Your task to perform on an android device: open app "Facebook" (install if not already installed) Image 0: 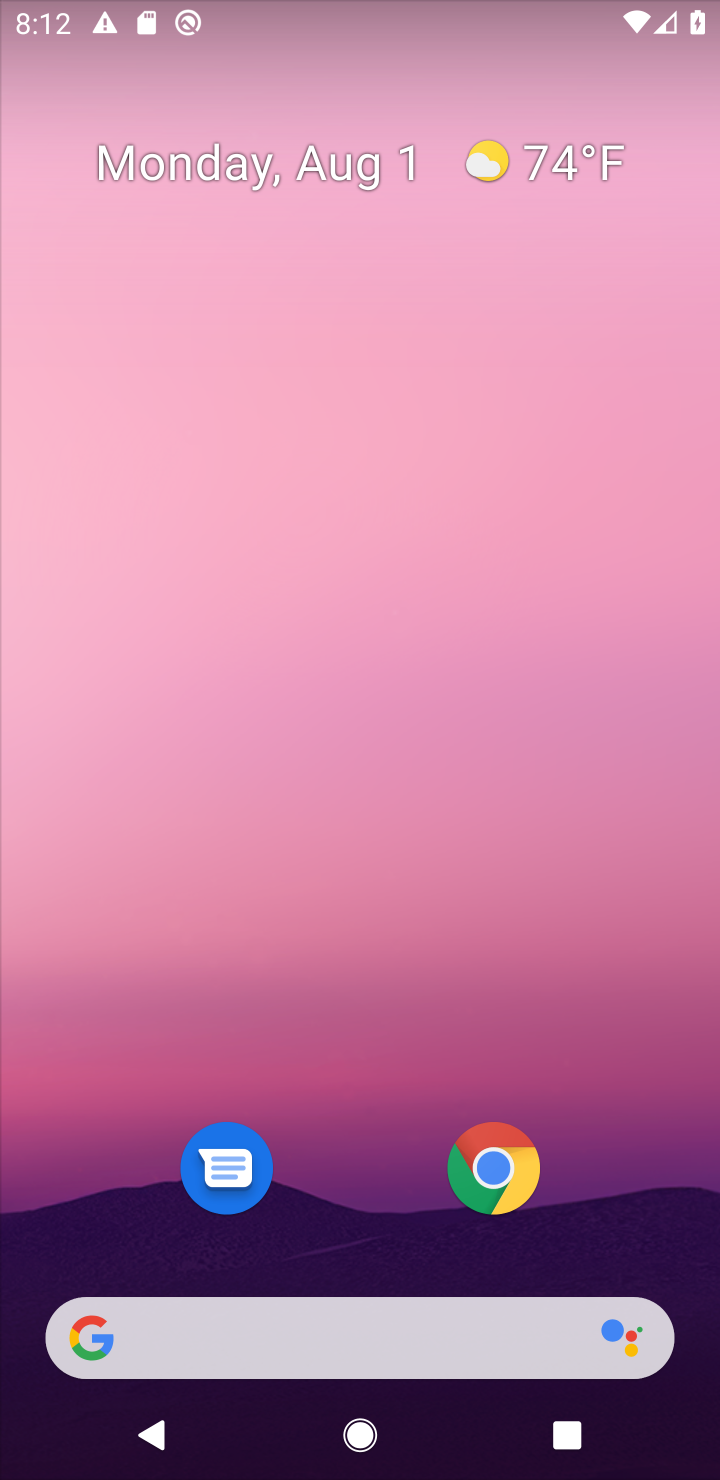
Step 0: drag from (326, 1054) to (414, 323)
Your task to perform on an android device: open app "Facebook" (install if not already installed) Image 1: 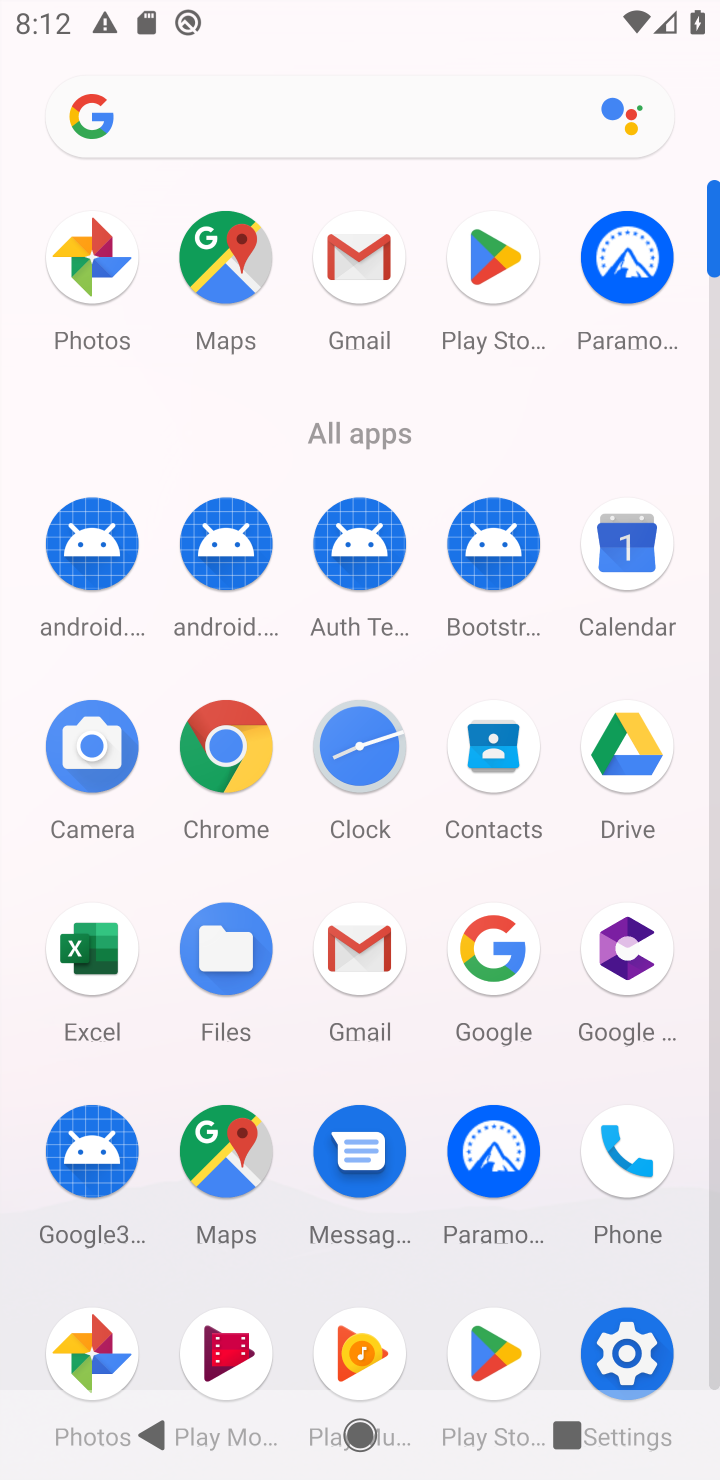
Step 1: click (501, 293)
Your task to perform on an android device: open app "Facebook" (install if not already installed) Image 2: 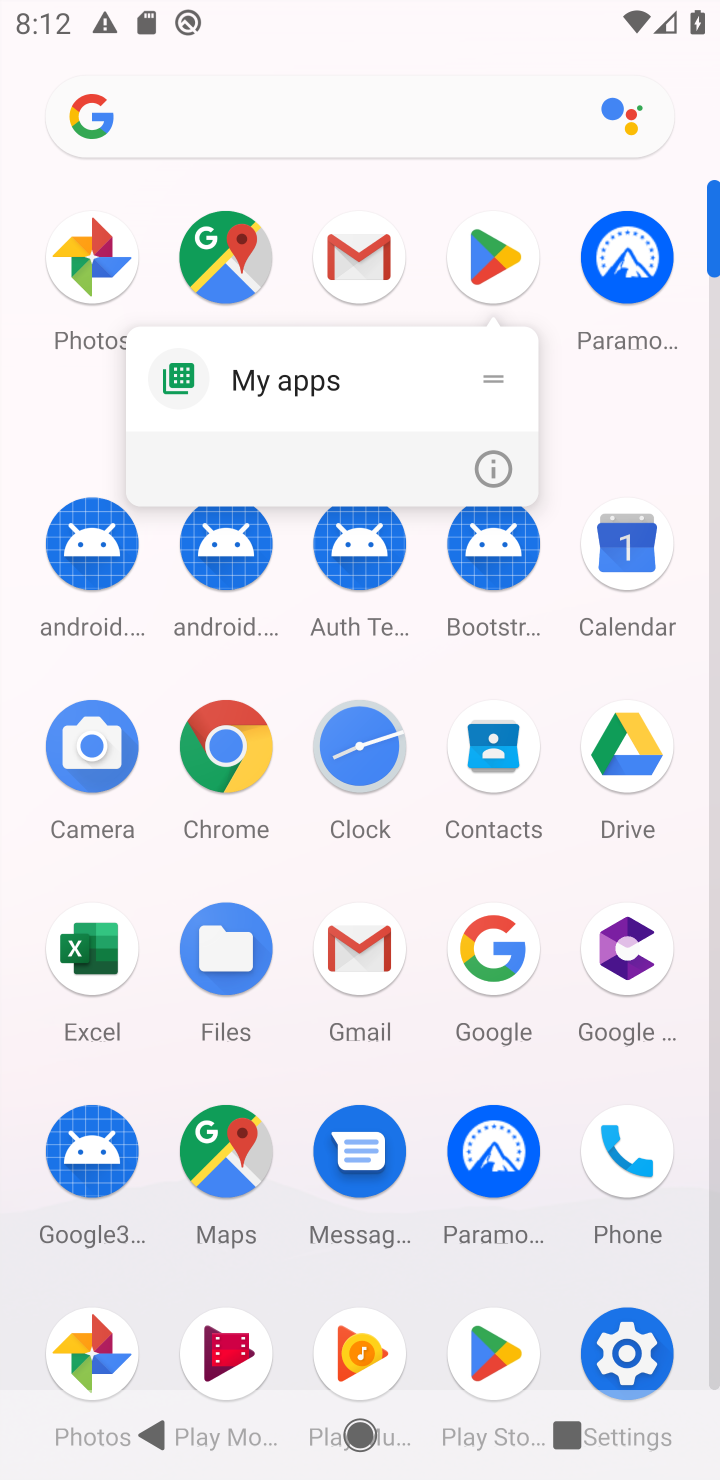
Step 2: click (487, 1370)
Your task to perform on an android device: open app "Facebook" (install if not already installed) Image 3: 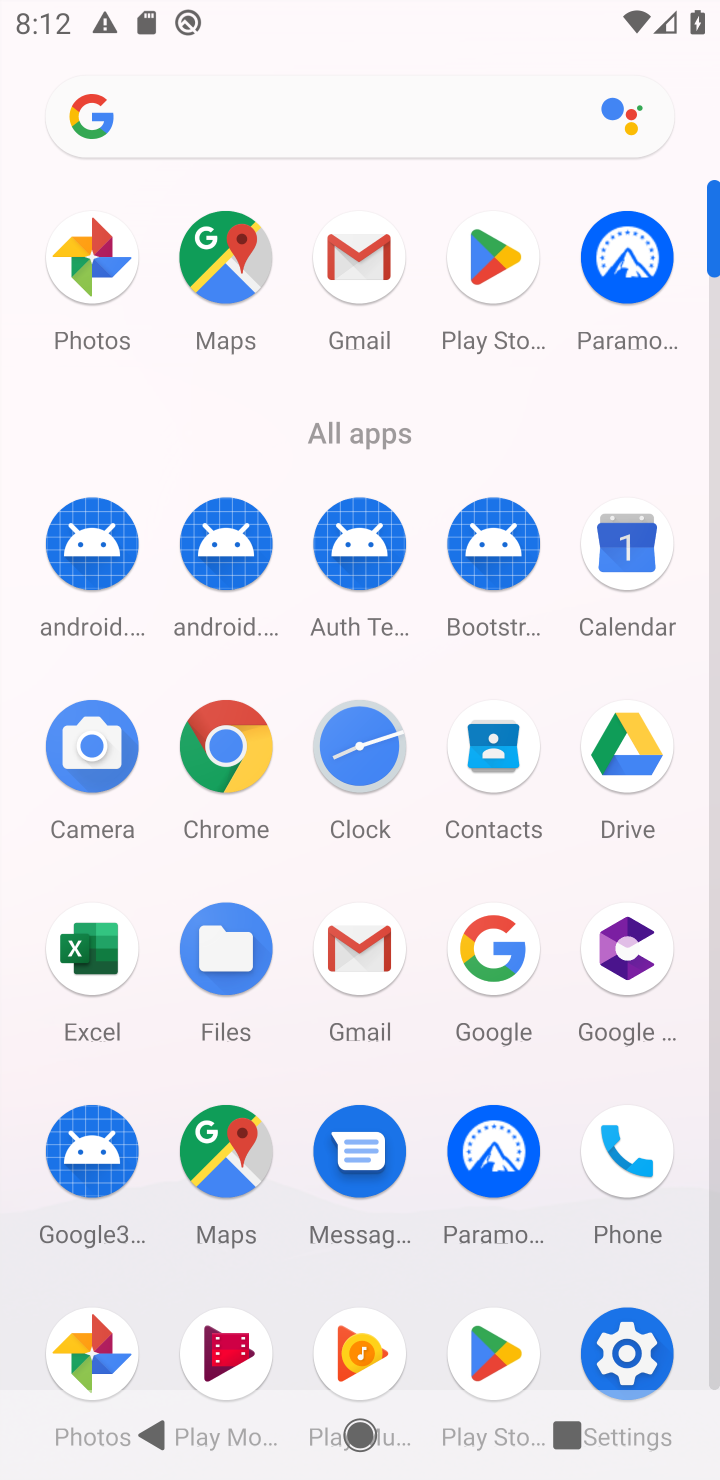
Step 3: click (480, 1367)
Your task to perform on an android device: open app "Facebook" (install if not already installed) Image 4: 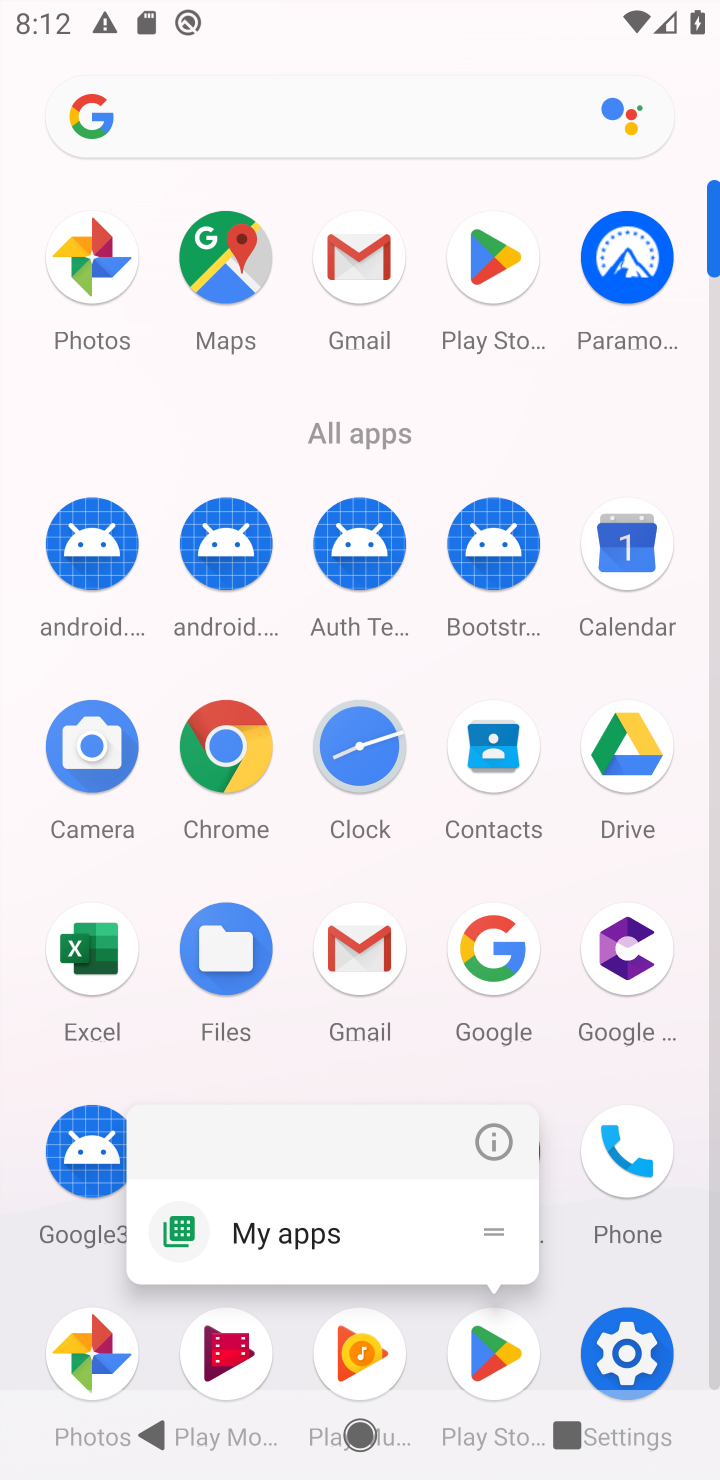
Step 4: click (484, 1348)
Your task to perform on an android device: open app "Facebook" (install if not already installed) Image 5: 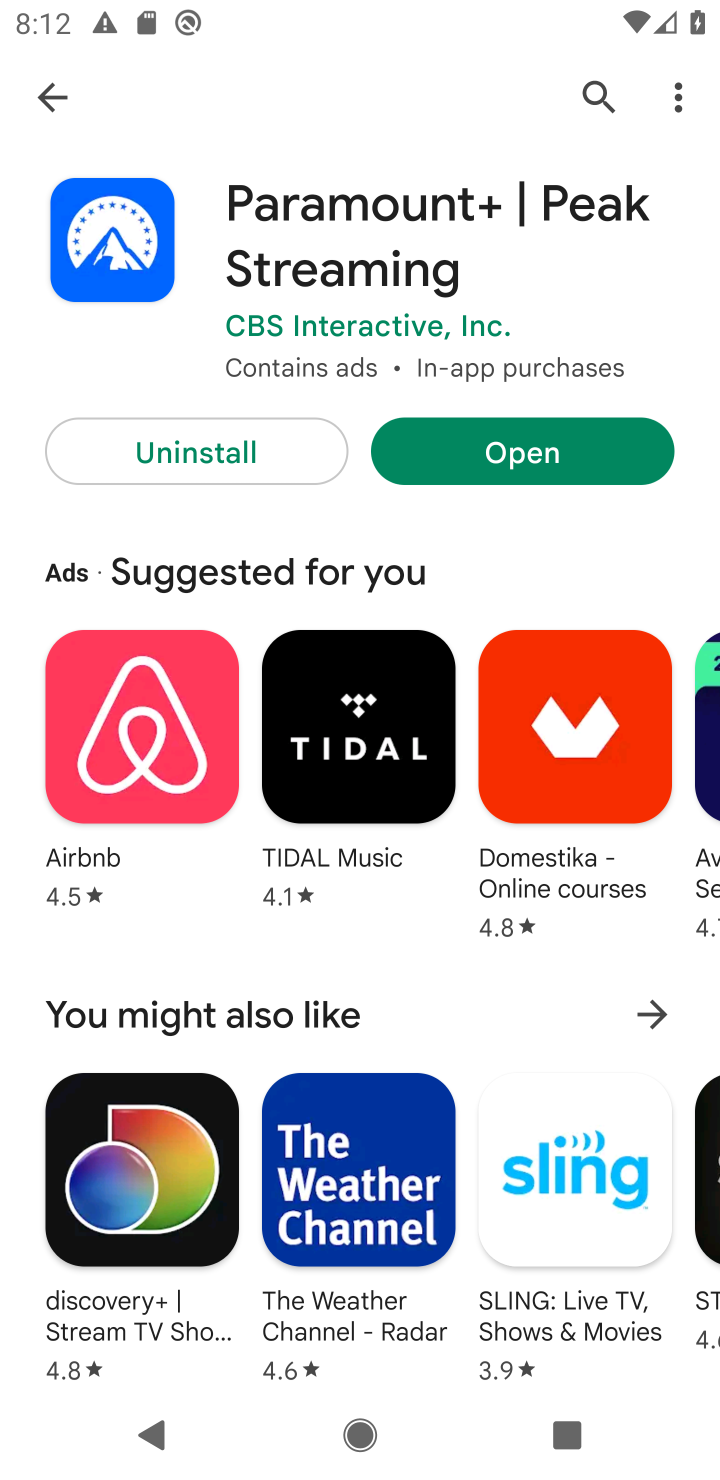
Step 5: press back button
Your task to perform on an android device: open app "Facebook" (install if not already installed) Image 6: 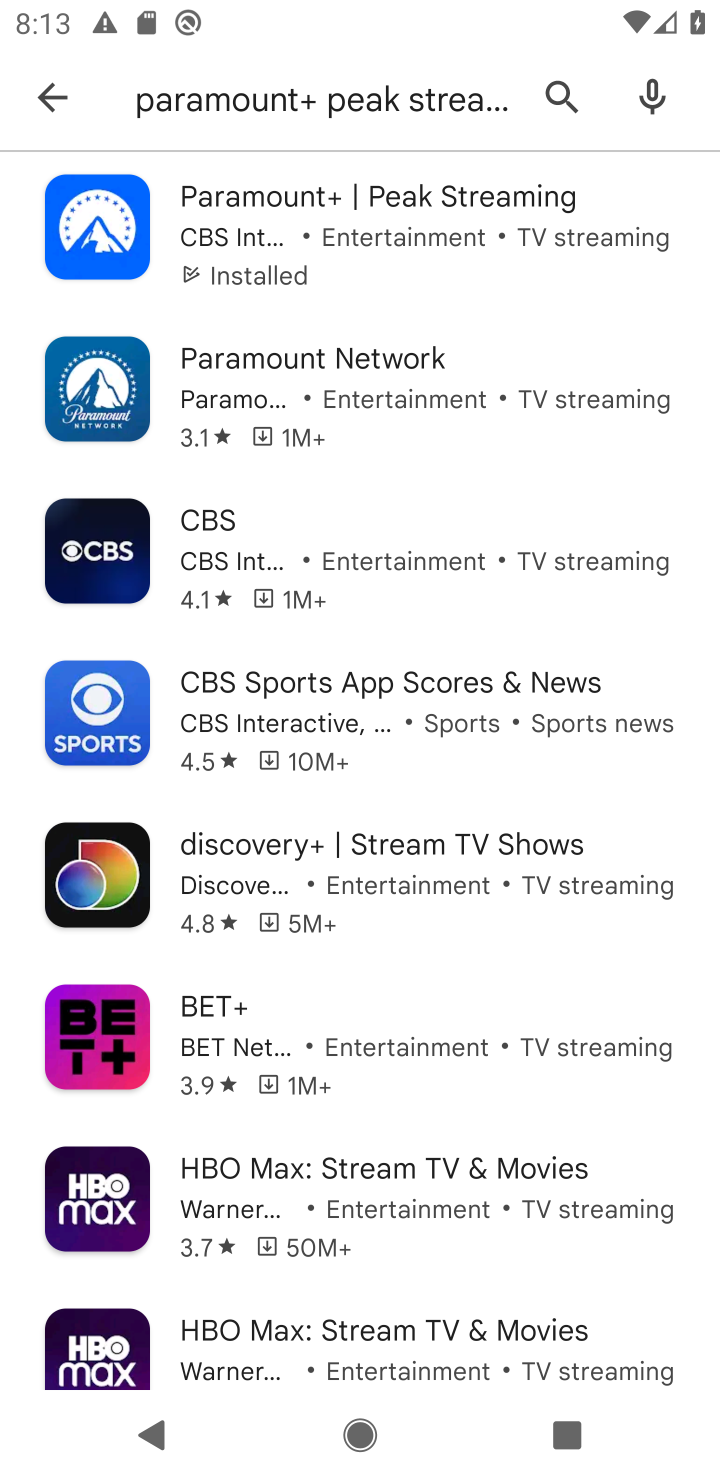
Step 6: click (61, 95)
Your task to perform on an android device: open app "Facebook" (install if not already installed) Image 7: 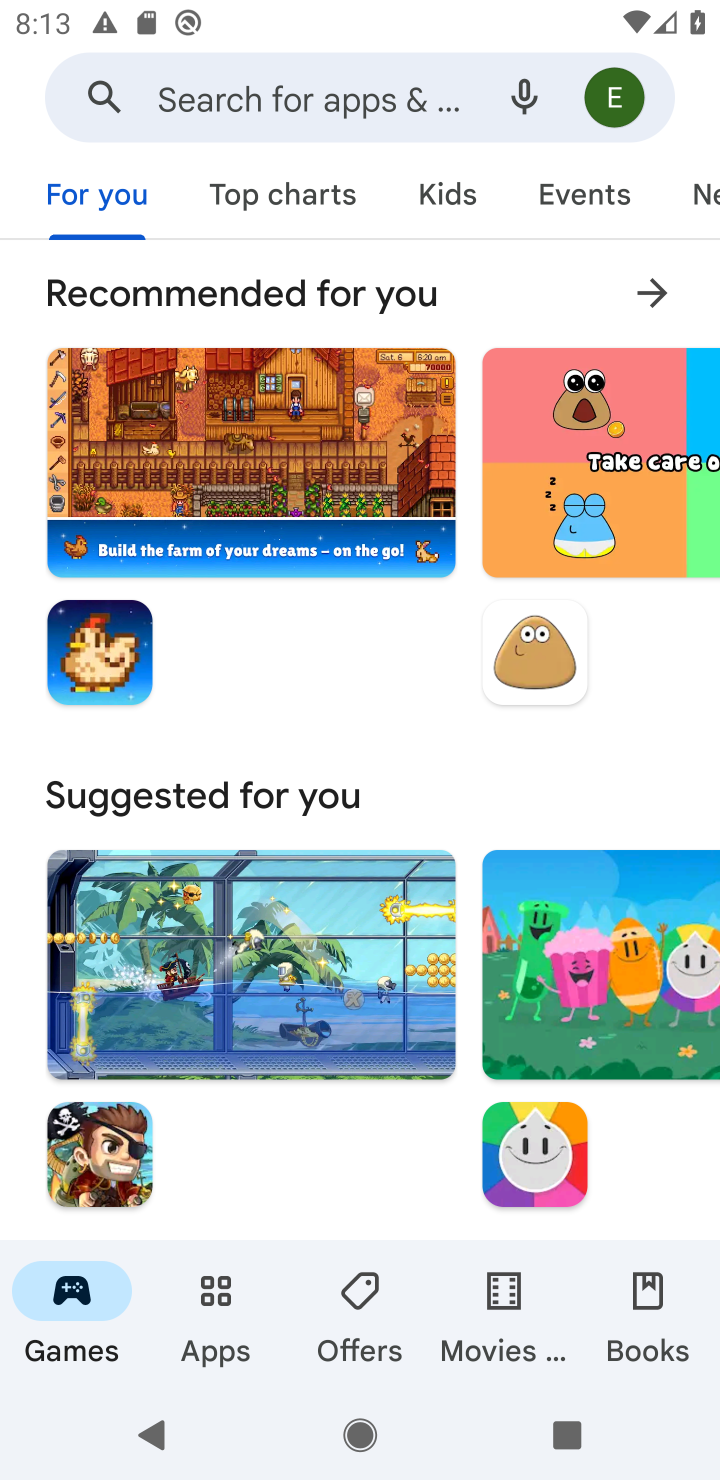
Step 7: click (259, 76)
Your task to perform on an android device: open app "Facebook" (install if not already installed) Image 8: 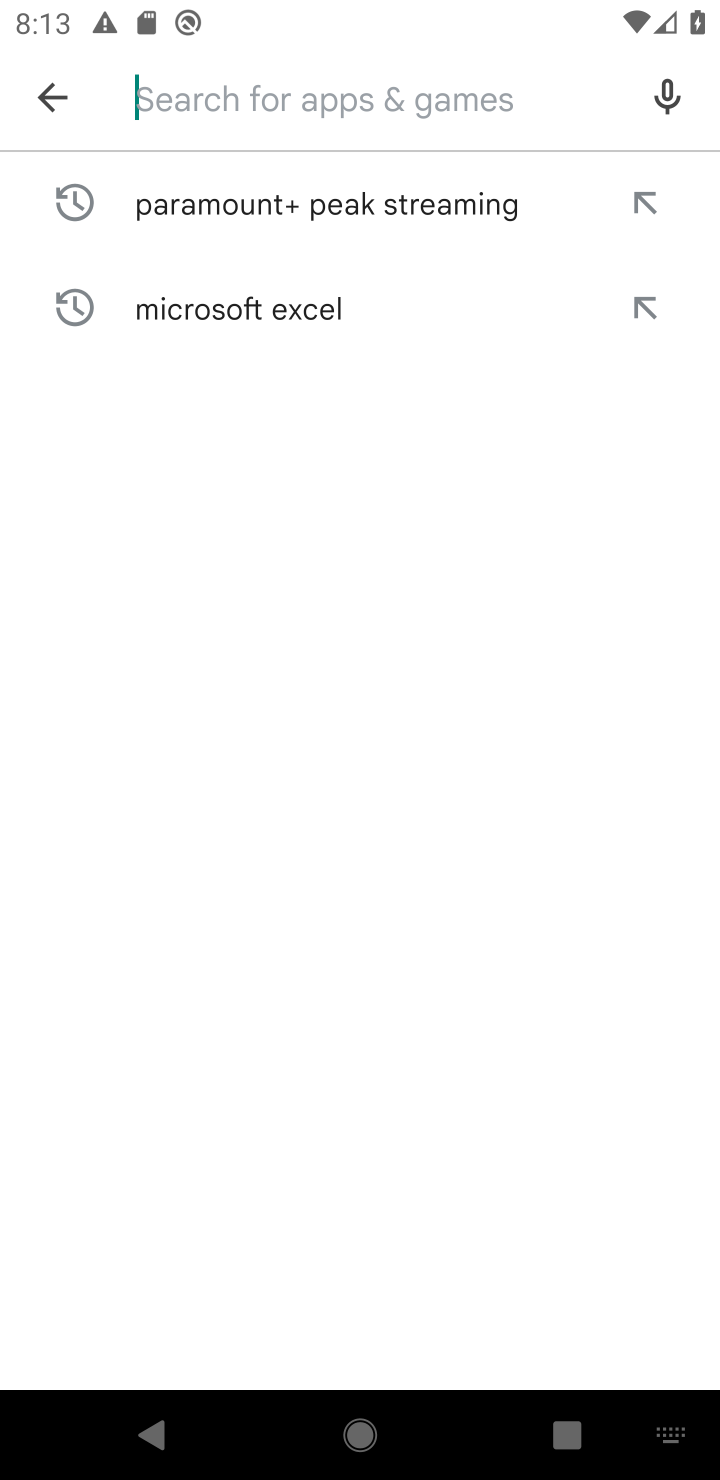
Step 8: type "Facebook"
Your task to perform on an android device: open app "Facebook" (install if not already installed) Image 9: 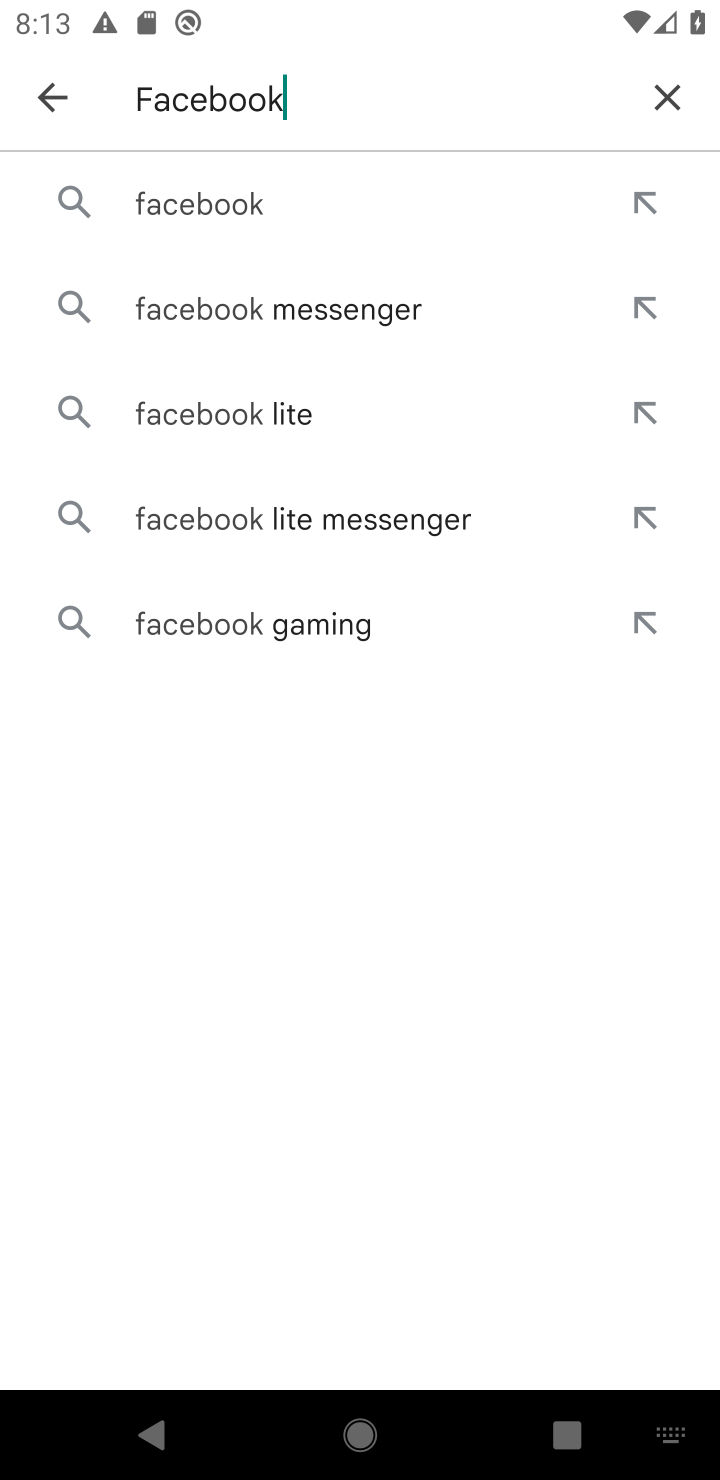
Step 9: click (219, 197)
Your task to perform on an android device: open app "Facebook" (install if not already installed) Image 10: 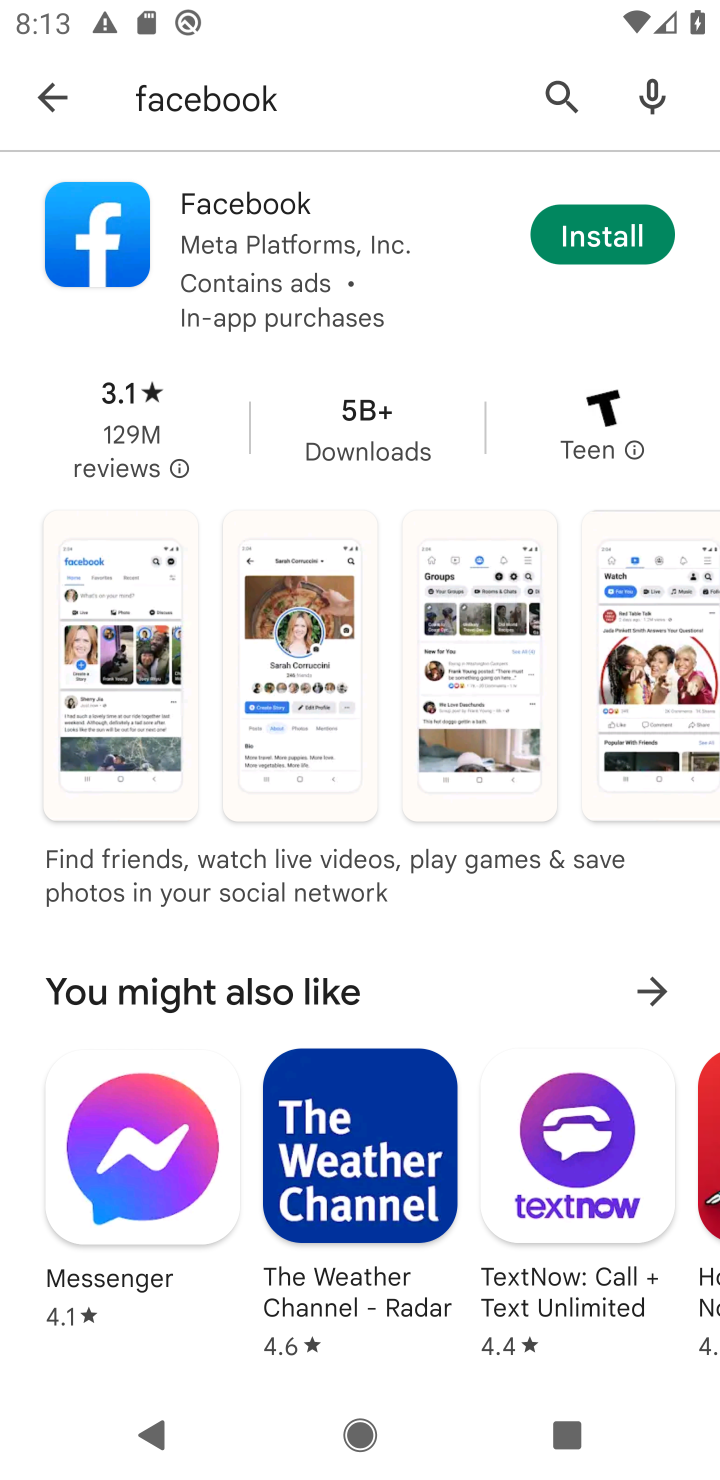
Step 10: click (634, 239)
Your task to perform on an android device: open app "Facebook" (install if not already installed) Image 11: 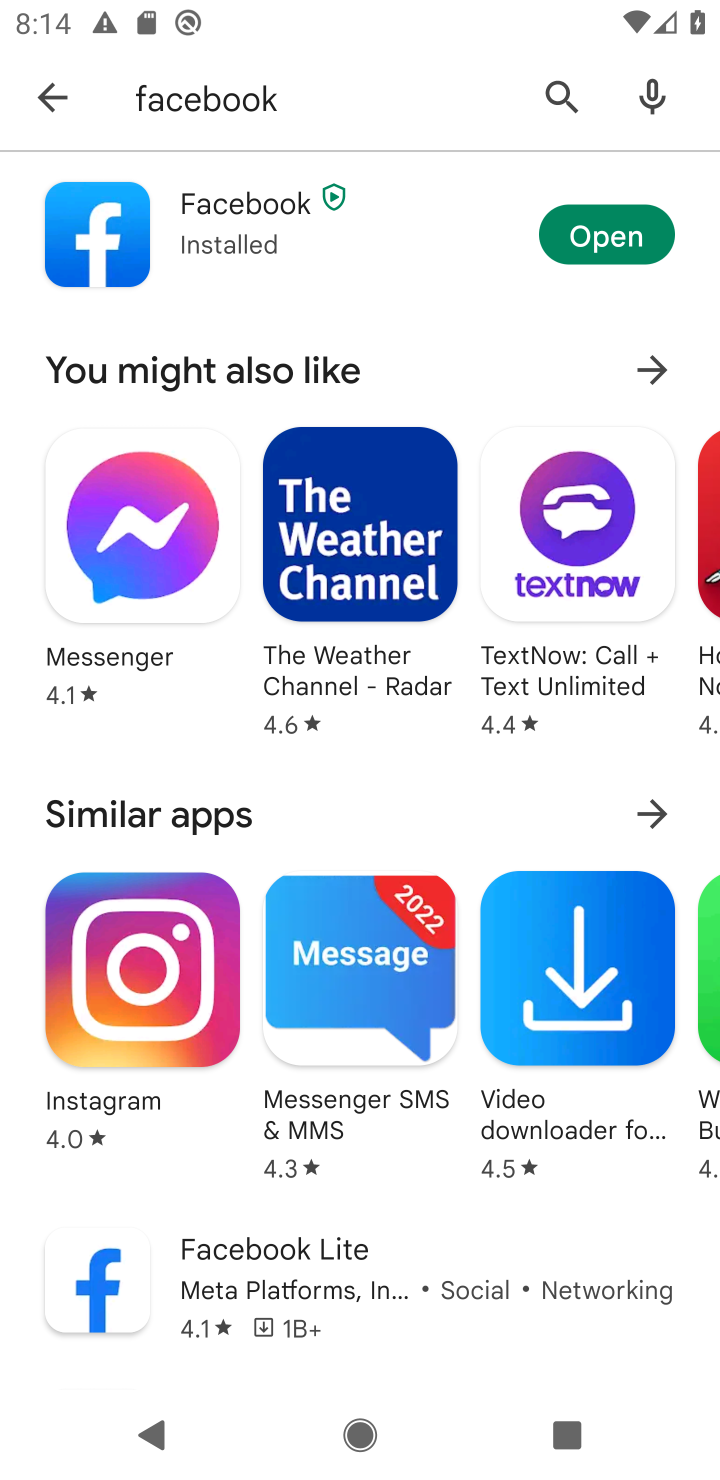
Step 11: click (606, 245)
Your task to perform on an android device: open app "Facebook" (install if not already installed) Image 12: 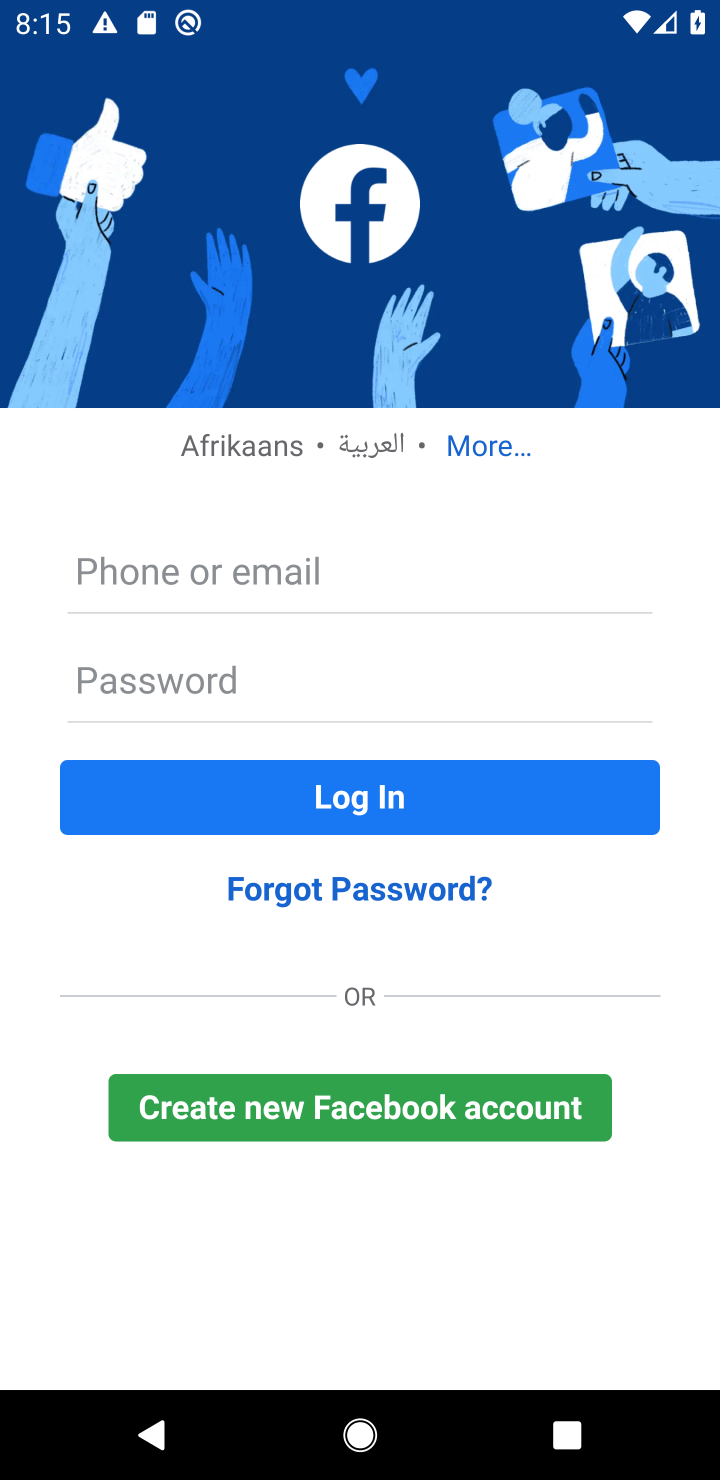
Step 12: task complete